Your task to perform on an android device: What's the weather today? Image 0: 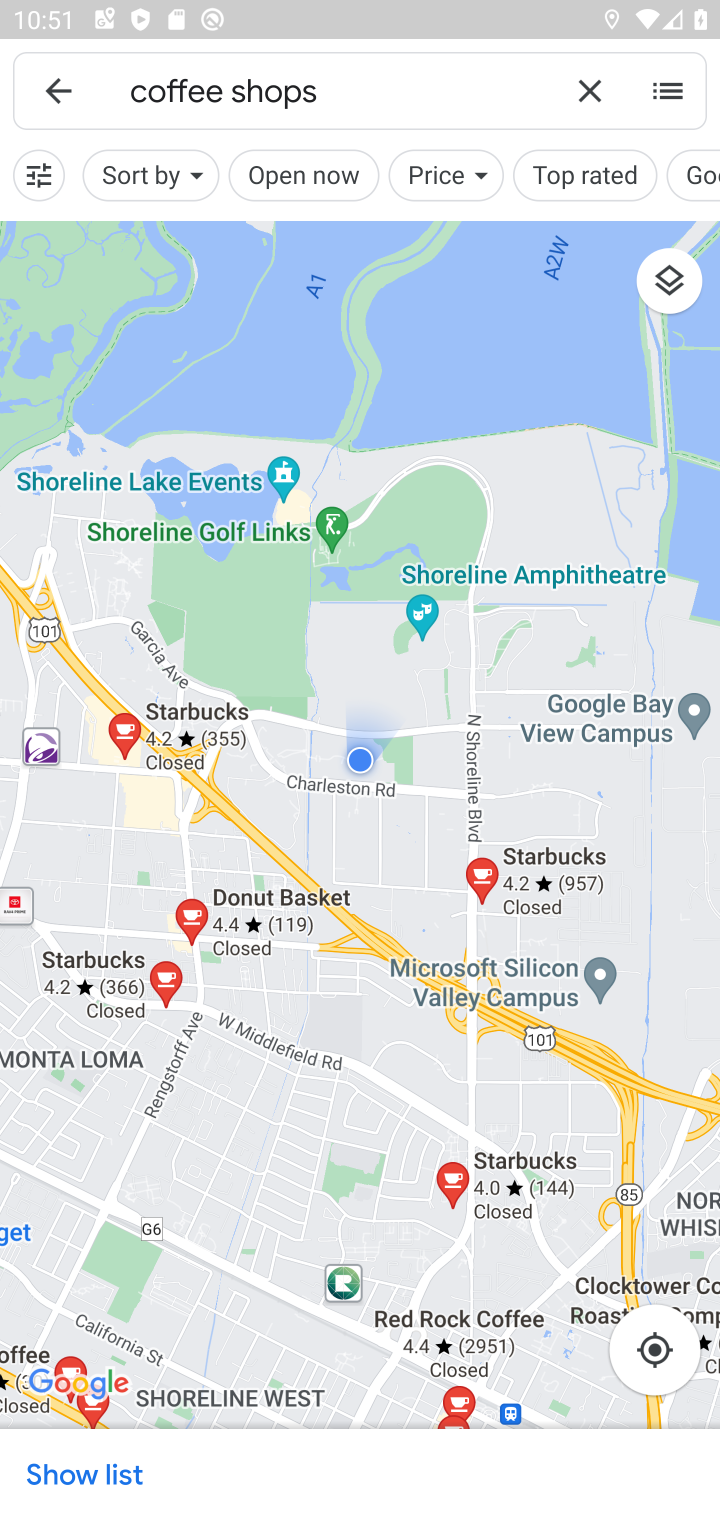
Step 0: press back button
Your task to perform on an android device: What's the weather today? Image 1: 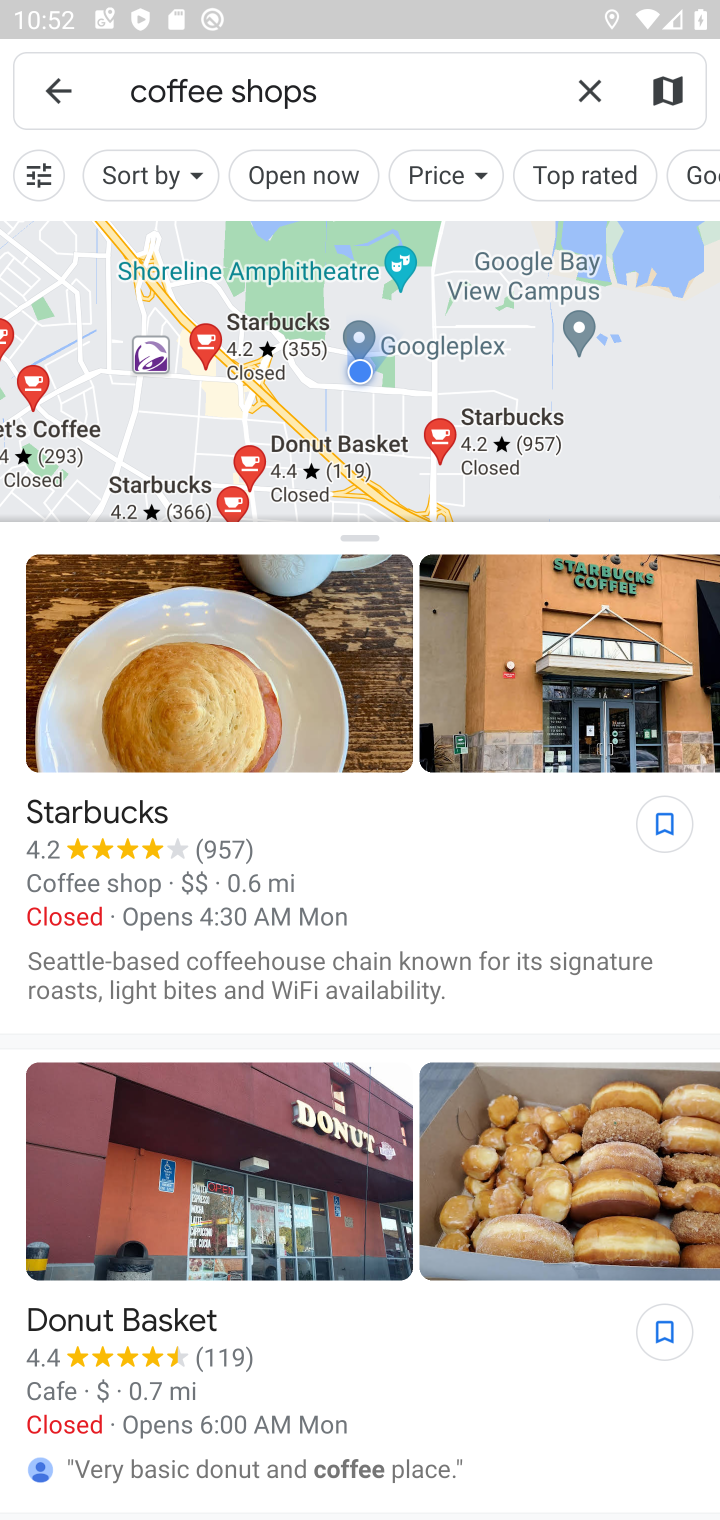
Step 1: press back button
Your task to perform on an android device: What's the weather today? Image 2: 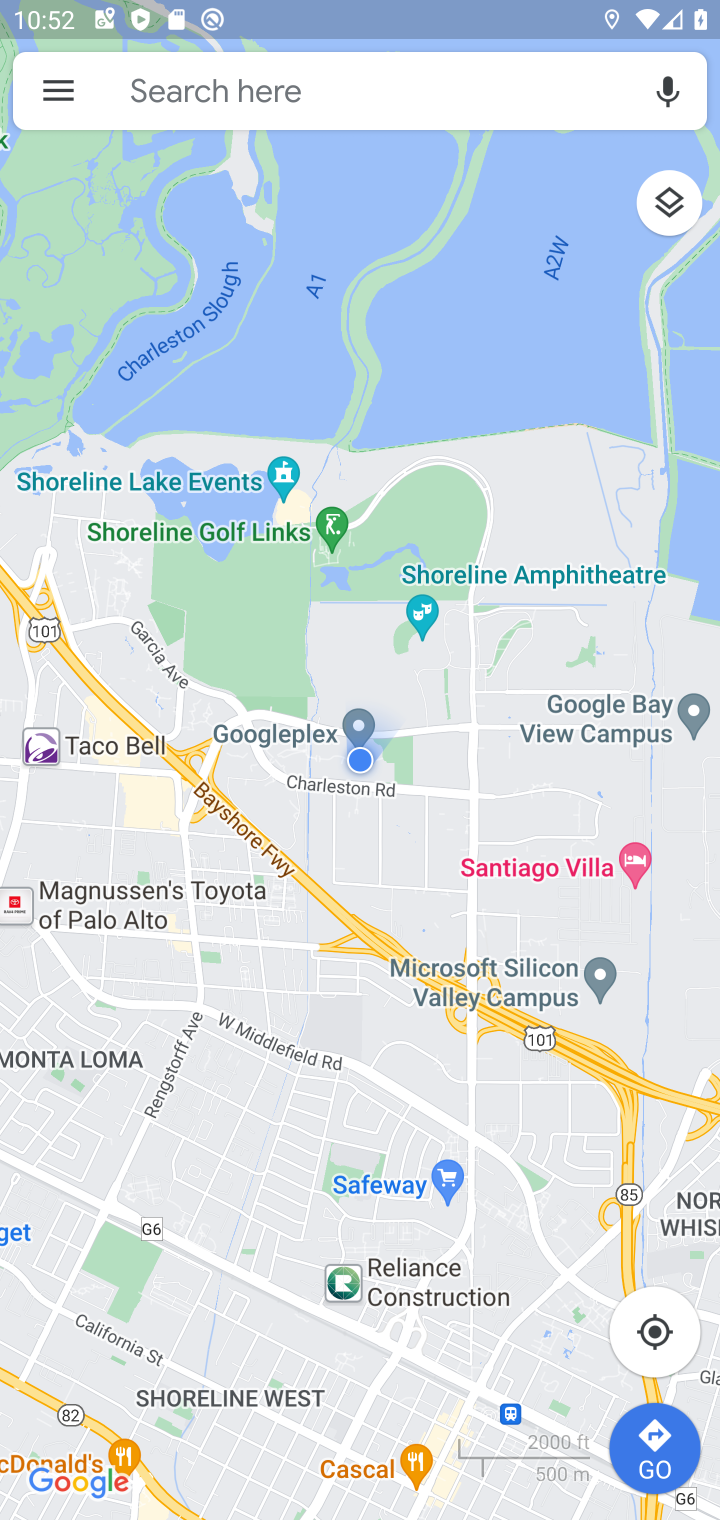
Step 2: press back button
Your task to perform on an android device: What's the weather today? Image 3: 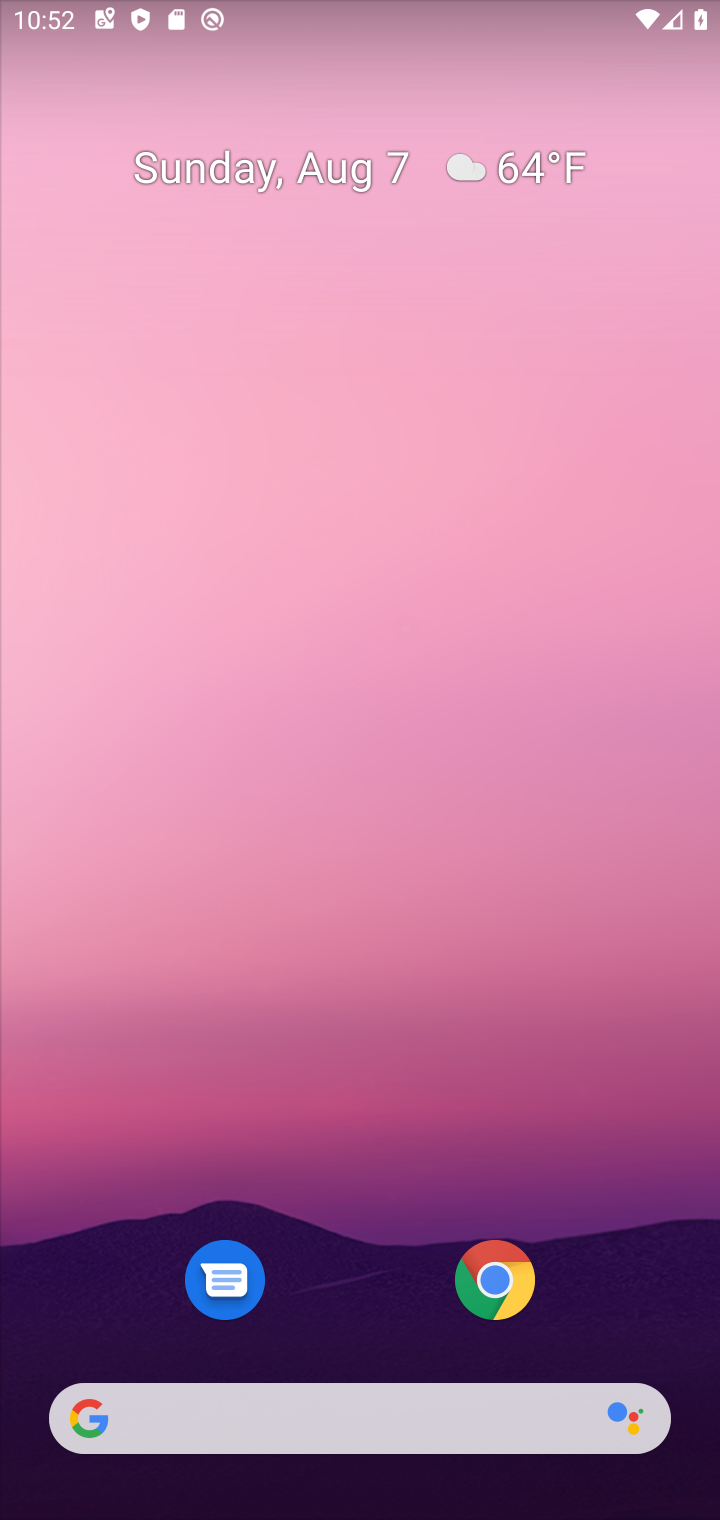
Step 3: drag from (352, 1301) to (400, 23)
Your task to perform on an android device: What's the weather today? Image 4: 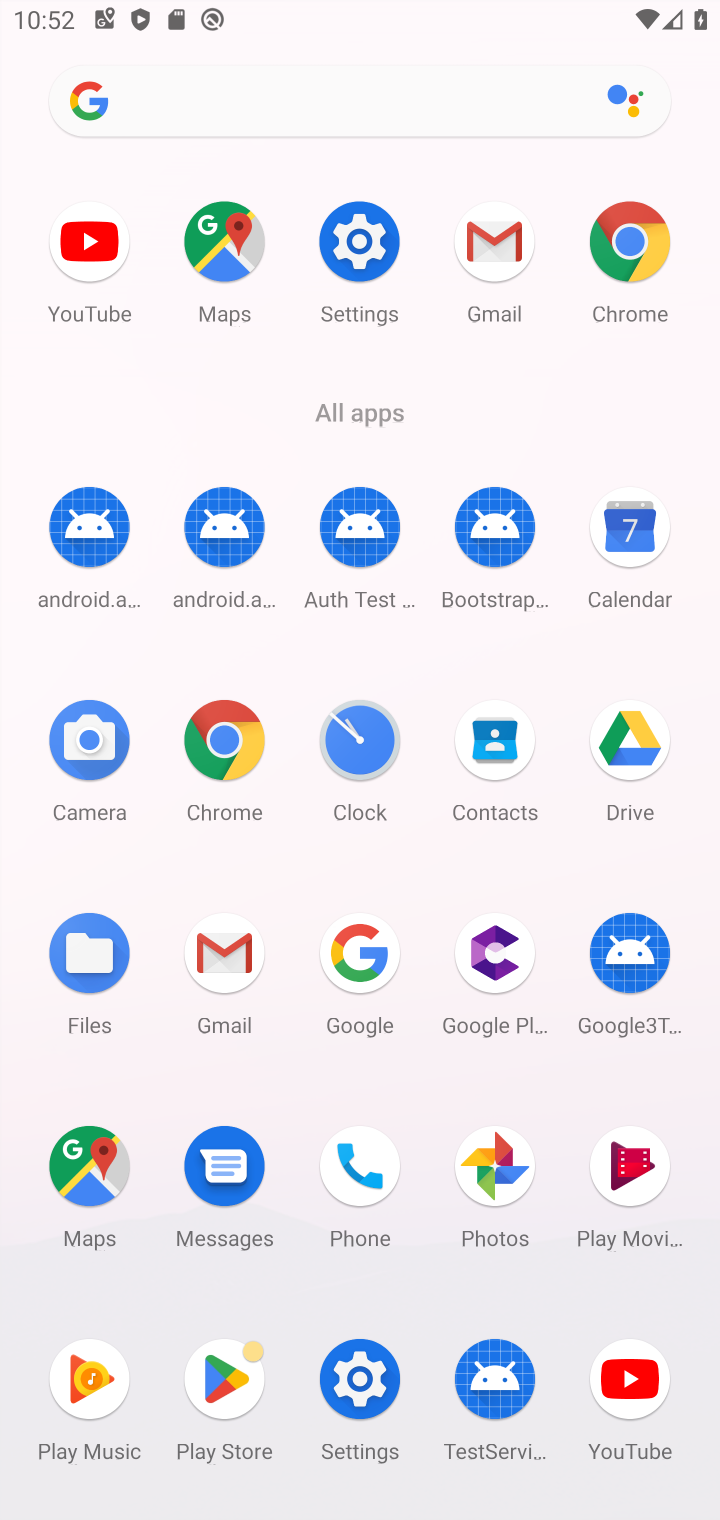
Step 4: click (264, 118)
Your task to perform on an android device: What's the weather today? Image 5: 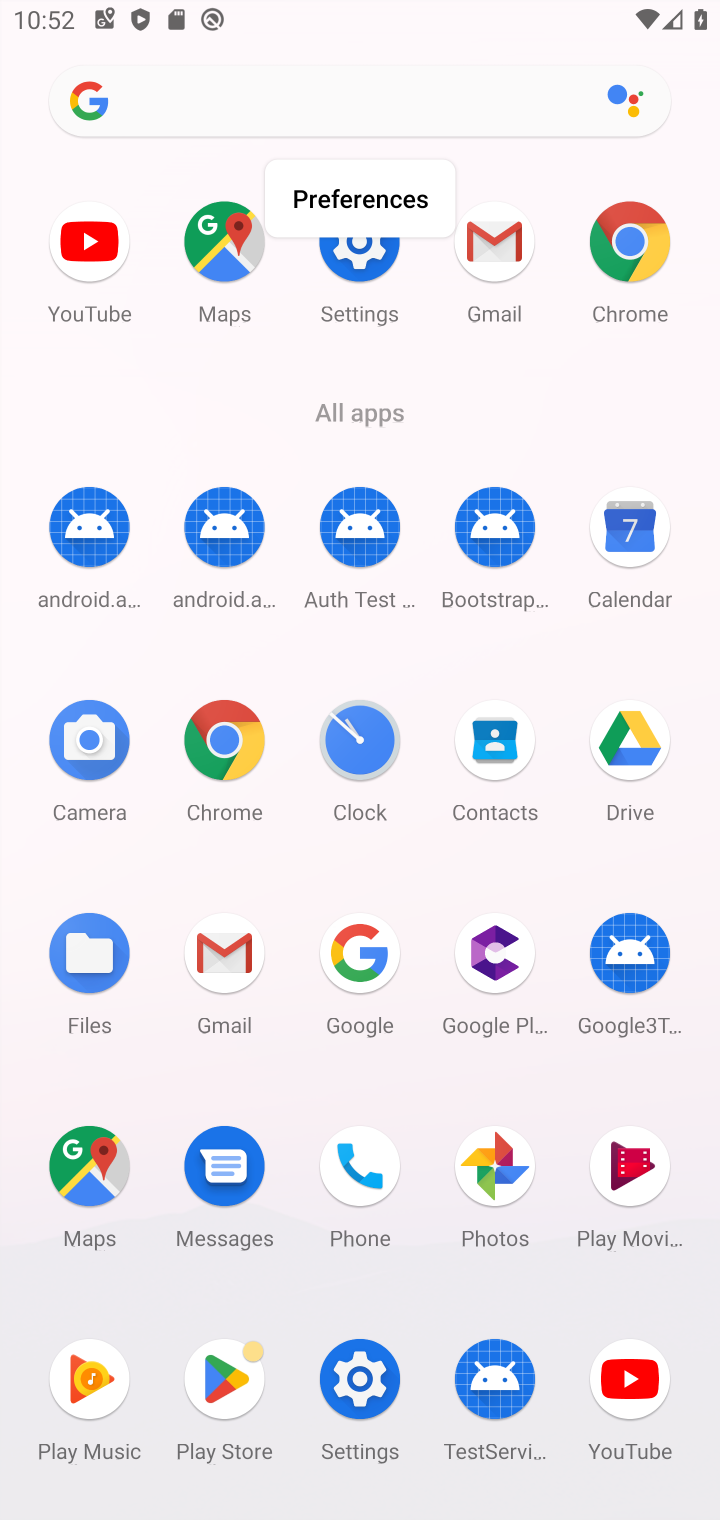
Step 5: click (290, 106)
Your task to perform on an android device: What's the weather today? Image 6: 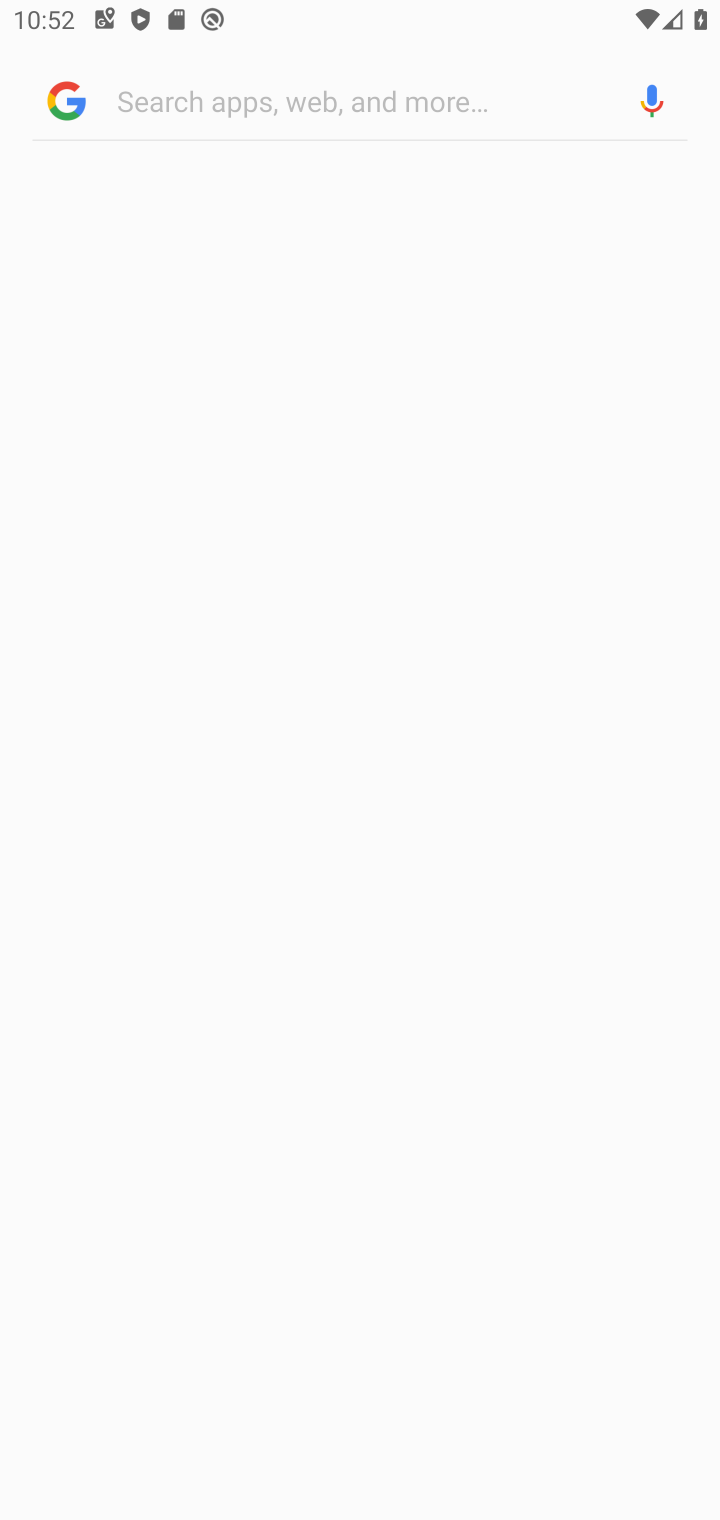
Step 6: click (282, 102)
Your task to perform on an android device: What's the weather today? Image 7: 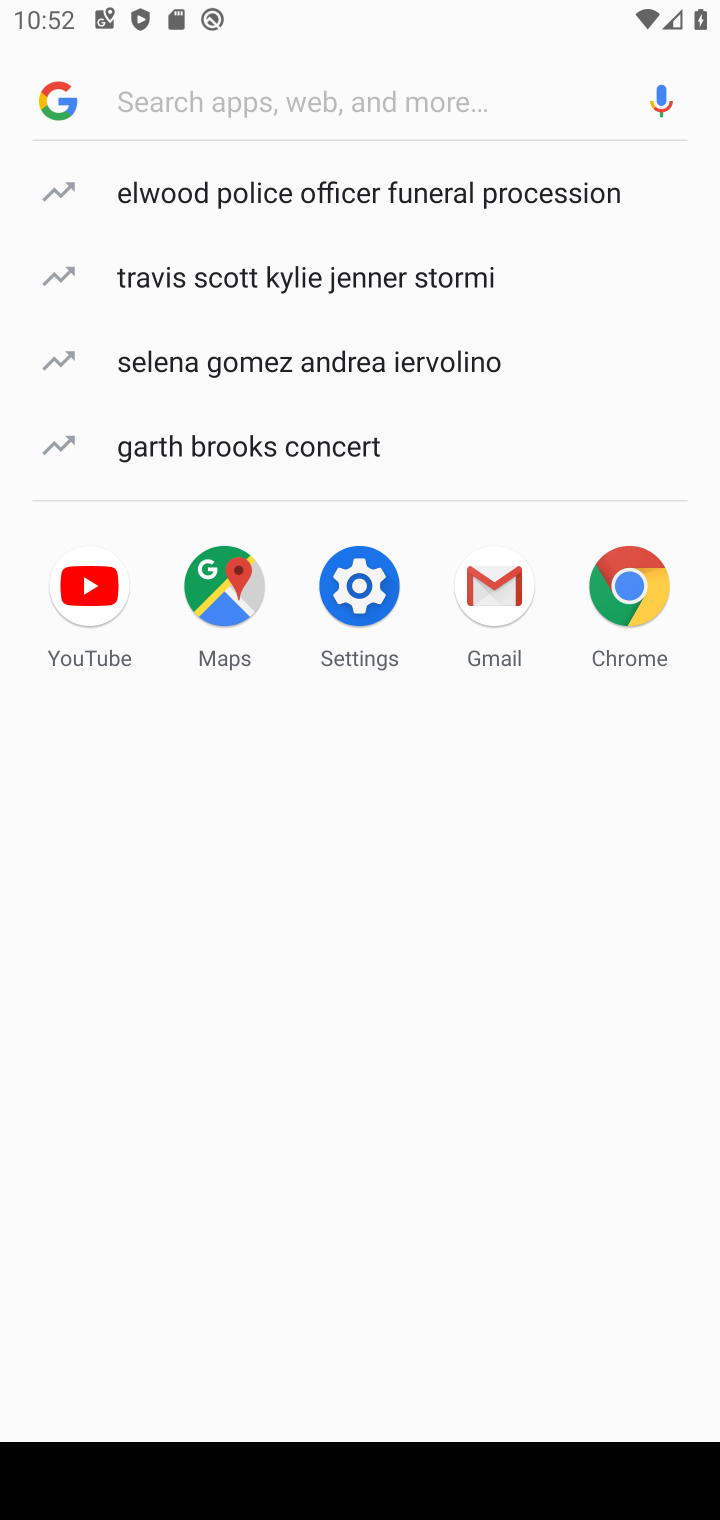
Step 7: type "weather today"
Your task to perform on an android device: What's the weather today? Image 8: 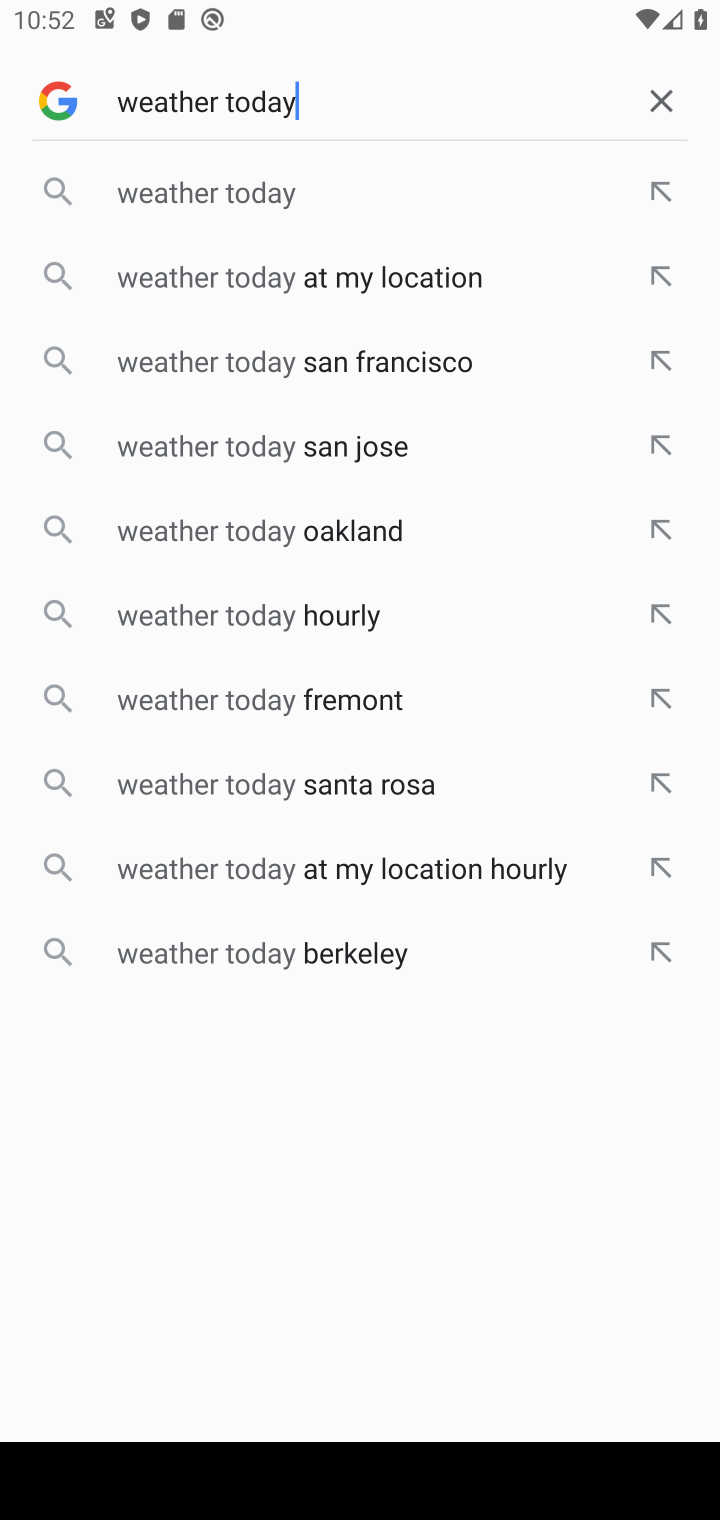
Step 8: click (231, 182)
Your task to perform on an android device: What's the weather today? Image 9: 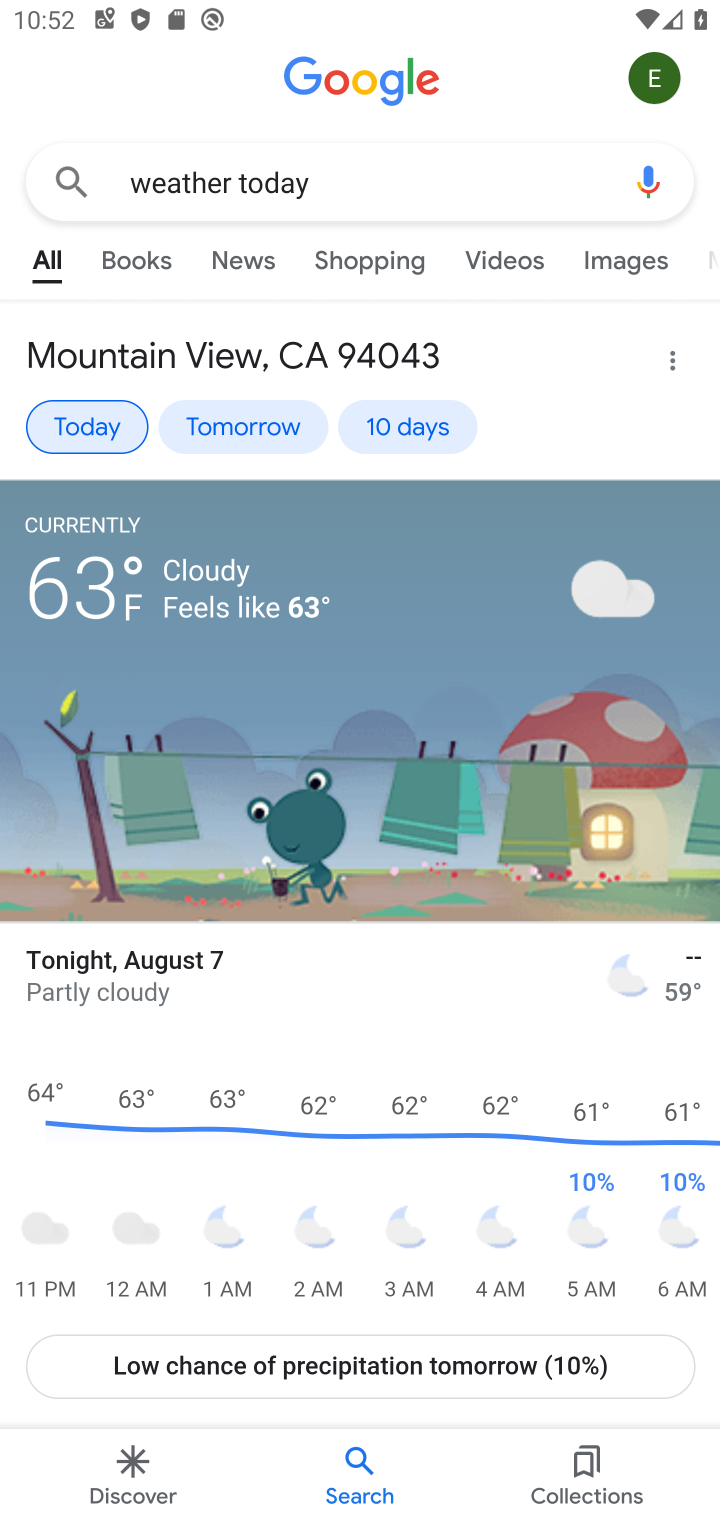
Step 9: task complete